Your task to perform on an android device: Open Google Chrome and open the bookmarks view Image 0: 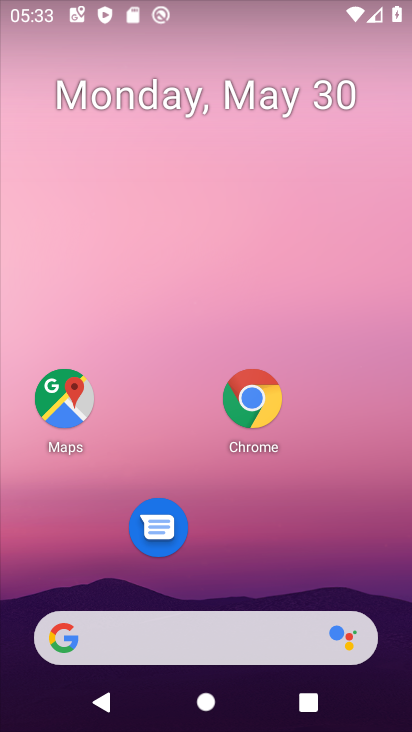
Step 0: click (238, 410)
Your task to perform on an android device: Open Google Chrome and open the bookmarks view Image 1: 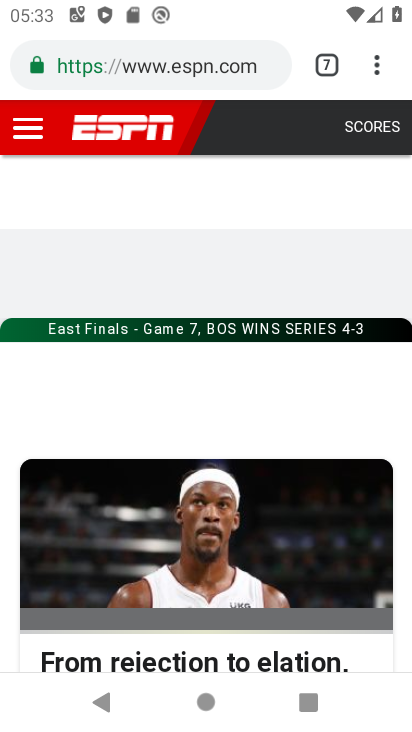
Step 1: click (377, 67)
Your task to perform on an android device: Open Google Chrome and open the bookmarks view Image 2: 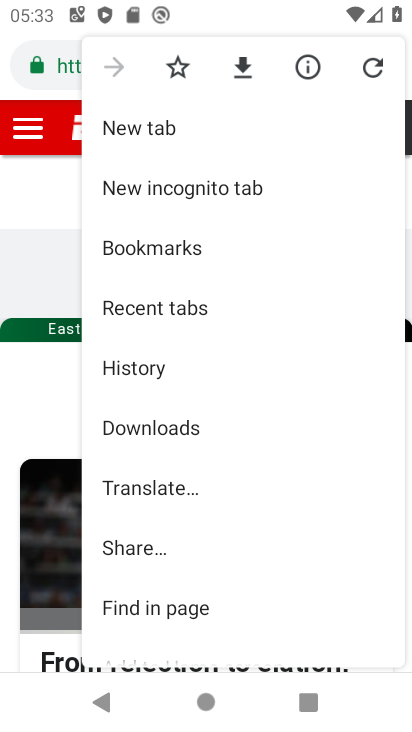
Step 2: click (155, 250)
Your task to perform on an android device: Open Google Chrome and open the bookmarks view Image 3: 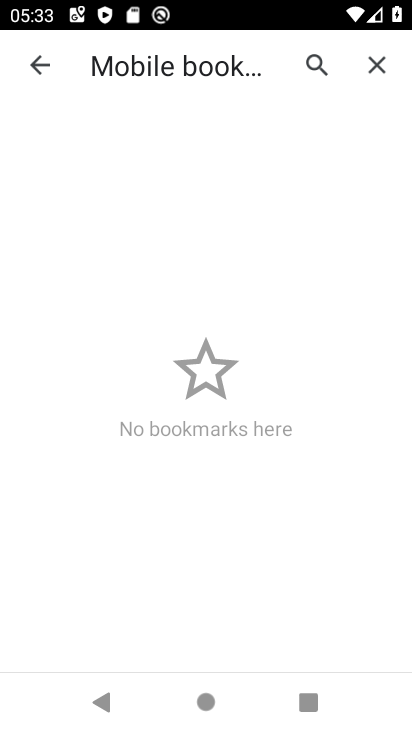
Step 3: task complete